Your task to perform on an android device: What's the weather going to be tomorrow? Image 0: 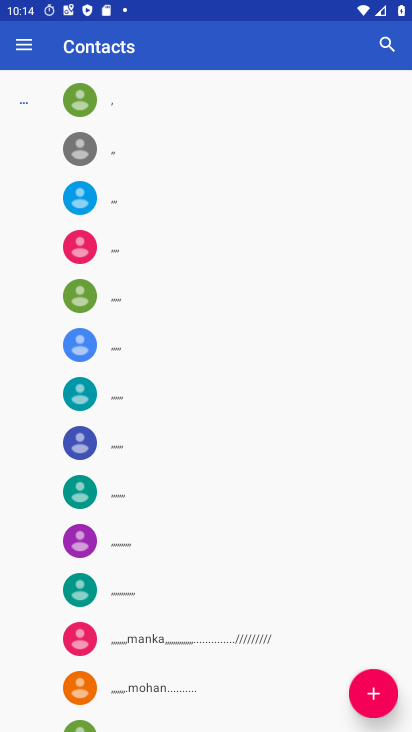
Step 0: press home button
Your task to perform on an android device: What's the weather going to be tomorrow? Image 1: 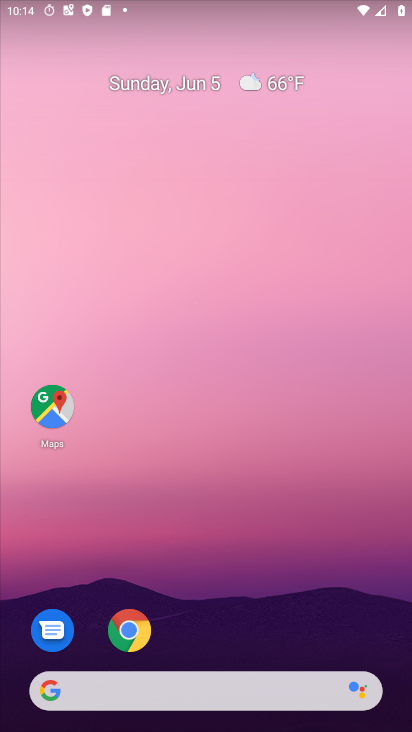
Step 1: drag from (203, 729) to (221, 7)
Your task to perform on an android device: What's the weather going to be tomorrow? Image 2: 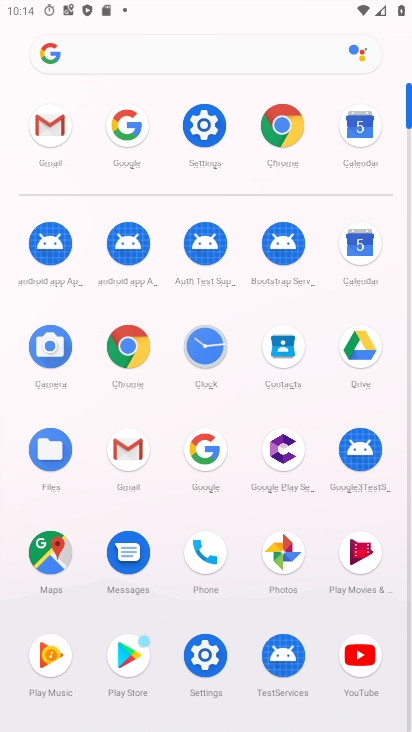
Step 2: click (209, 444)
Your task to perform on an android device: What's the weather going to be tomorrow? Image 3: 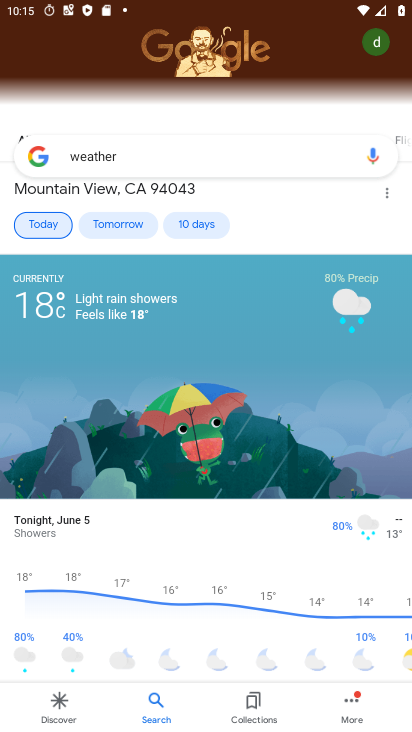
Step 3: click (114, 222)
Your task to perform on an android device: What's the weather going to be tomorrow? Image 4: 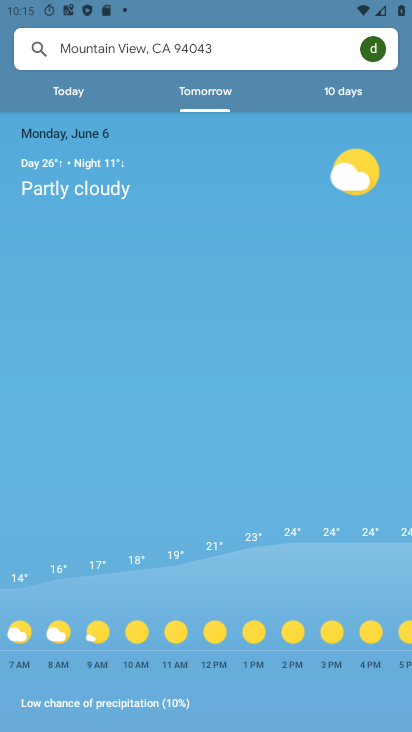
Step 4: task complete